Your task to perform on an android device: Open the map Image 0: 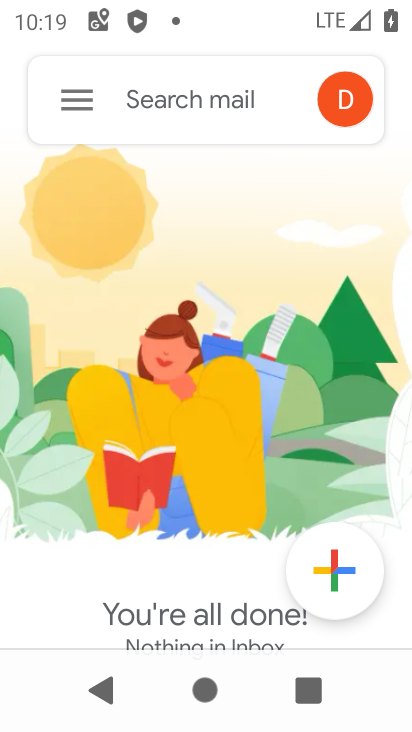
Step 0: press home button
Your task to perform on an android device: Open the map Image 1: 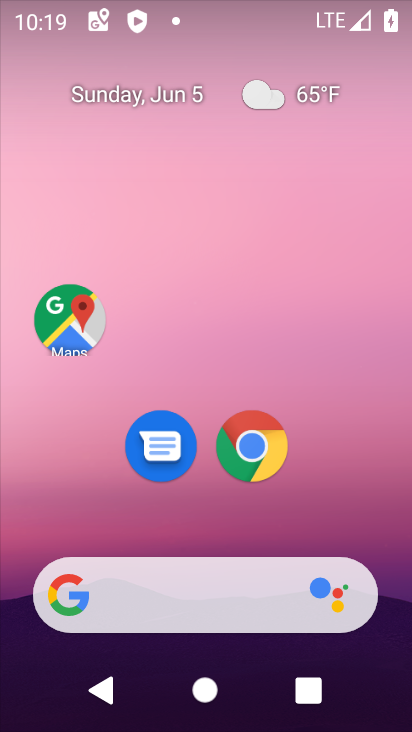
Step 1: click (36, 328)
Your task to perform on an android device: Open the map Image 2: 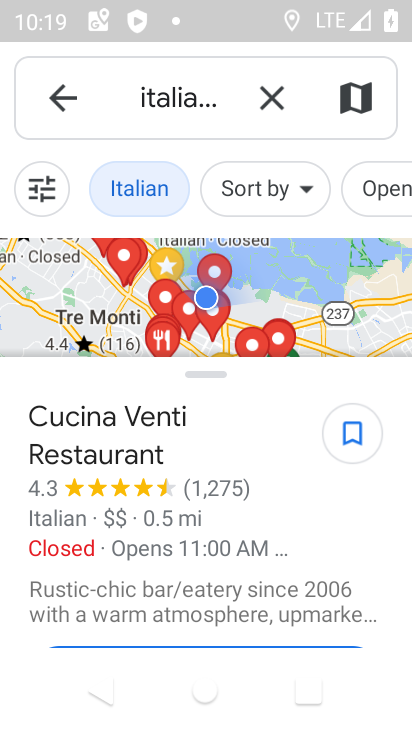
Step 2: task complete